Your task to perform on an android device: turn off javascript in the chrome app Image 0: 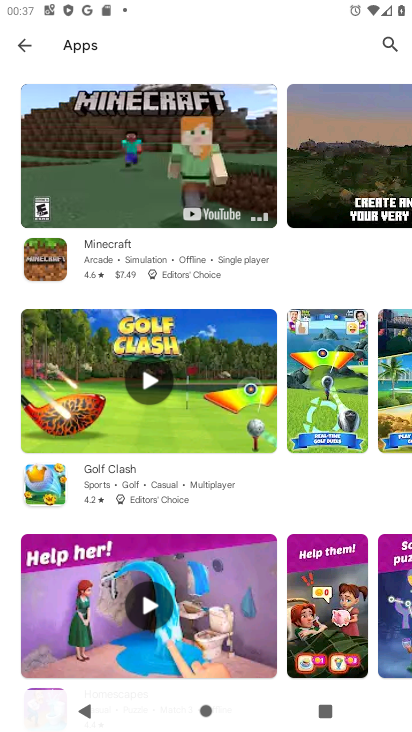
Step 0: press home button
Your task to perform on an android device: turn off javascript in the chrome app Image 1: 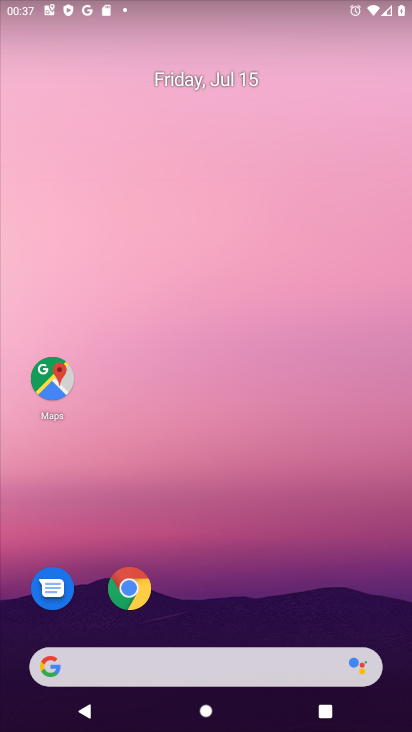
Step 1: click (128, 583)
Your task to perform on an android device: turn off javascript in the chrome app Image 2: 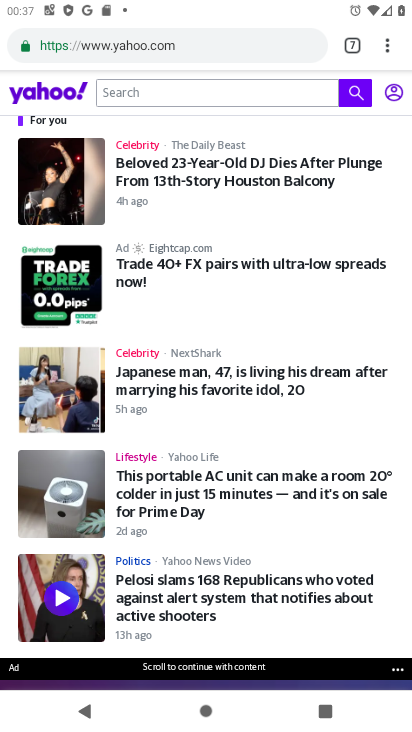
Step 2: drag from (385, 44) to (247, 553)
Your task to perform on an android device: turn off javascript in the chrome app Image 3: 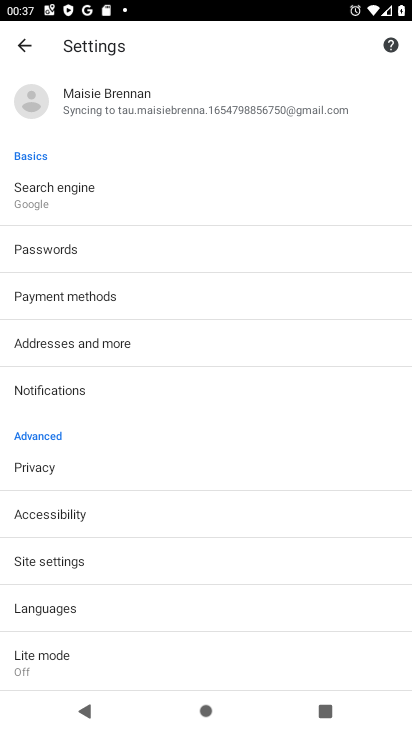
Step 3: click (53, 557)
Your task to perform on an android device: turn off javascript in the chrome app Image 4: 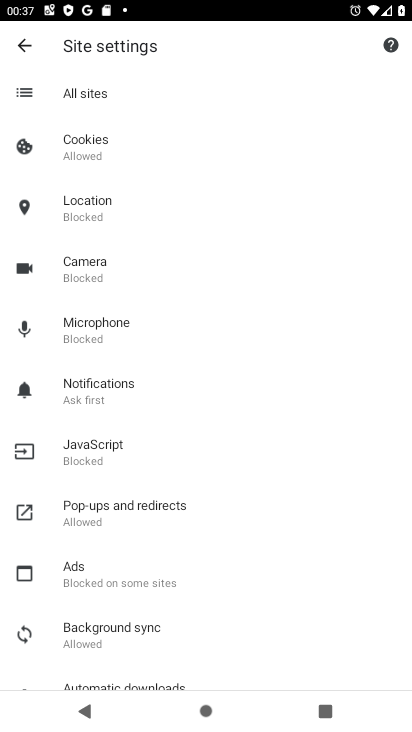
Step 4: click (95, 451)
Your task to perform on an android device: turn off javascript in the chrome app Image 5: 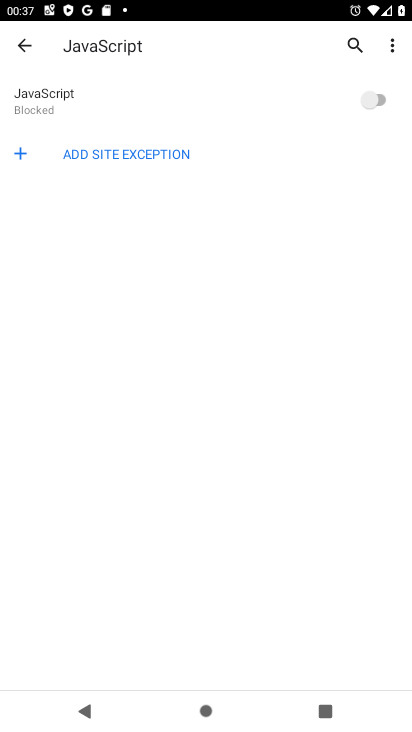
Step 5: task complete